Your task to perform on an android device: find which apps use the phone's location Image 0: 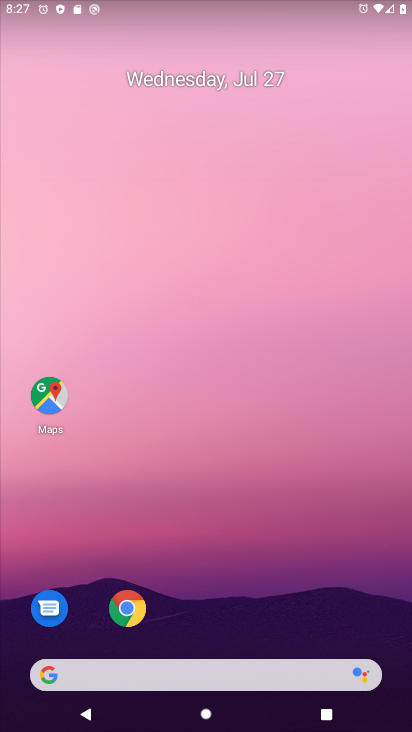
Step 0: drag from (293, 511) to (293, 200)
Your task to perform on an android device: find which apps use the phone's location Image 1: 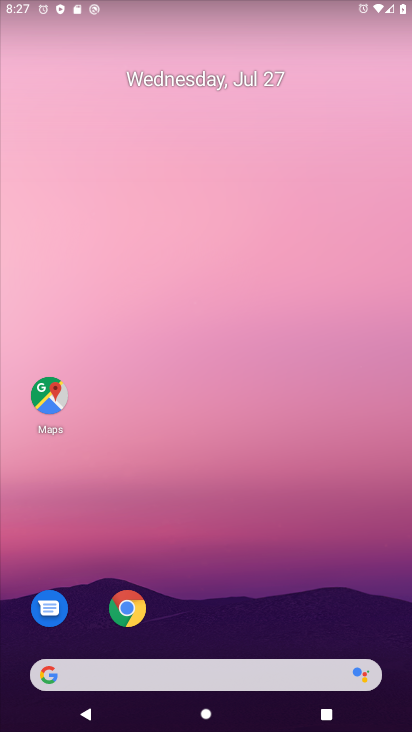
Step 1: drag from (278, 567) to (271, 180)
Your task to perform on an android device: find which apps use the phone's location Image 2: 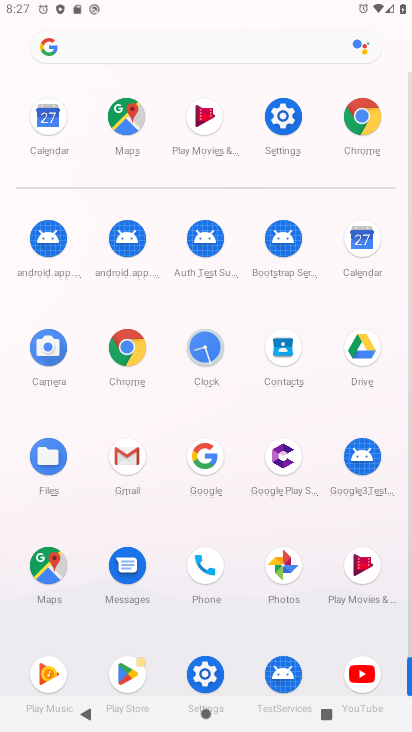
Step 2: click (287, 116)
Your task to perform on an android device: find which apps use the phone's location Image 3: 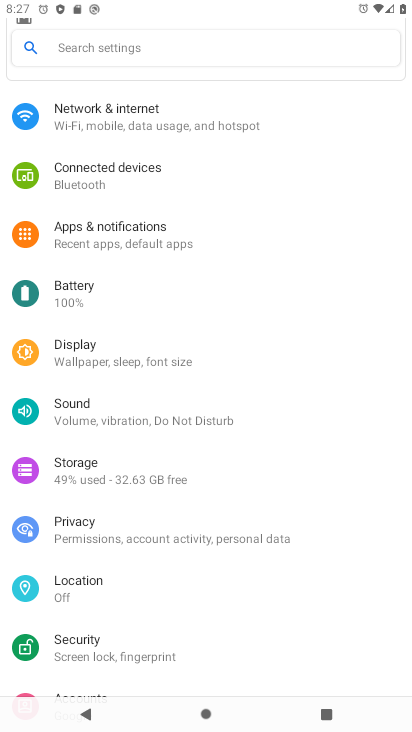
Step 3: click (78, 598)
Your task to perform on an android device: find which apps use the phone's location Image 4: 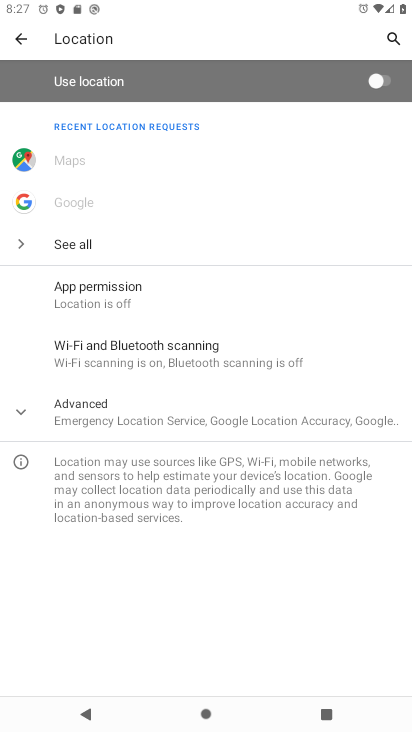
Step 4: task complete